Your task to perform on an android device: Open sound settings Image 0: 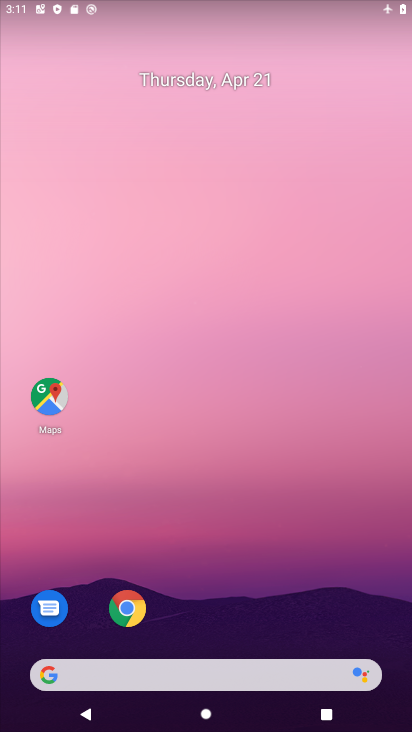
Step 0: drag from (175, 625) to (212, 2)
Your task to perform on an android device: Open sound settings Image 1: 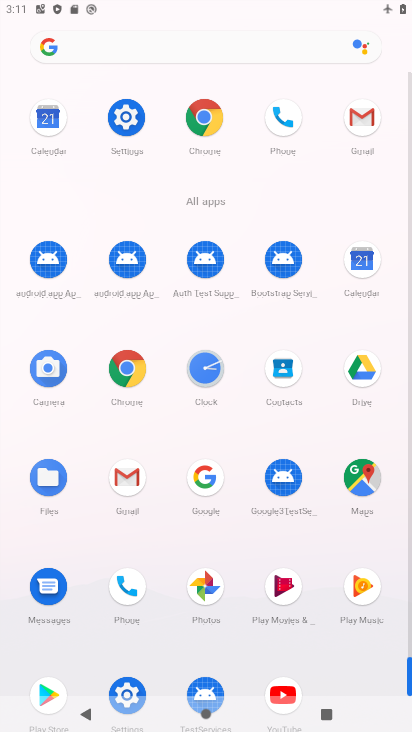
Step 1: click (123, 142)
Your task to perform on an android device: Open sound settings Image 2: 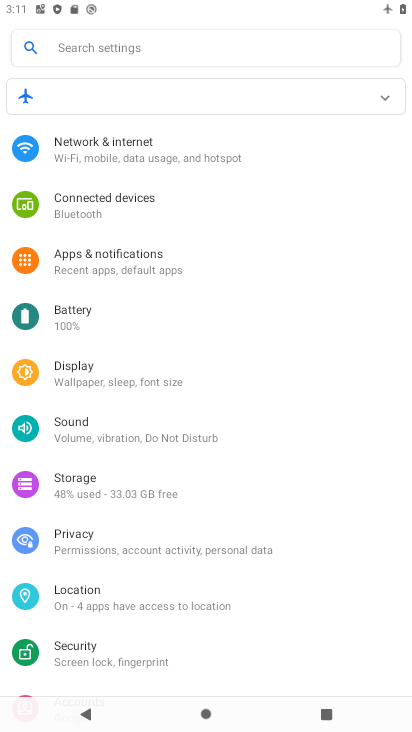
Step 2: click (80, 429)
Your task to perform on an android device: Open sound settings Image 3: 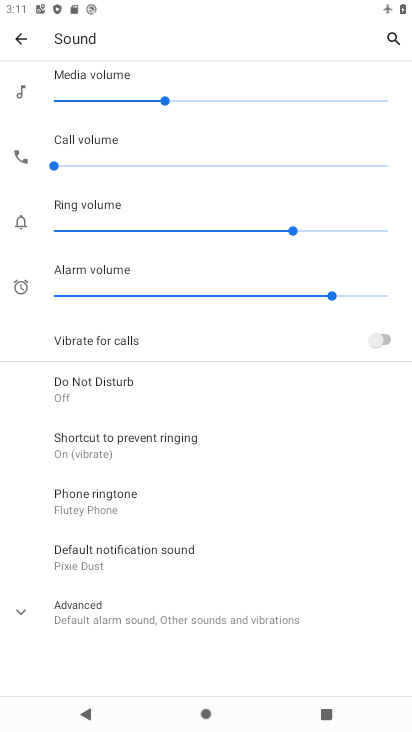
Step 3: task complete